Your task to perform on an android device: toggle javascript in the chrome app Image 0: 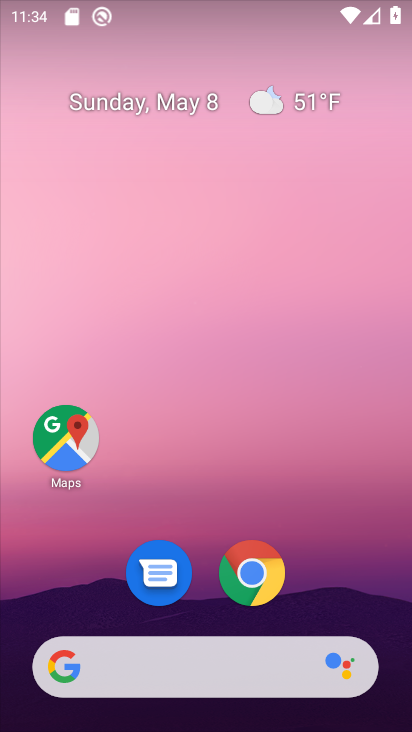
Step 0: click (254, 588)
Your task to perform on an android device: toggle javascript in the chrome app Image 1: 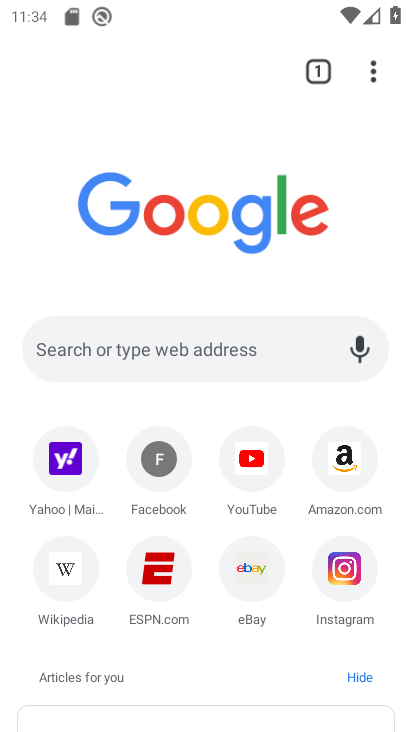
Step 1: click (370, 80)
Your task to perform on an android device: toggle javascript in the chrome app Image 2: 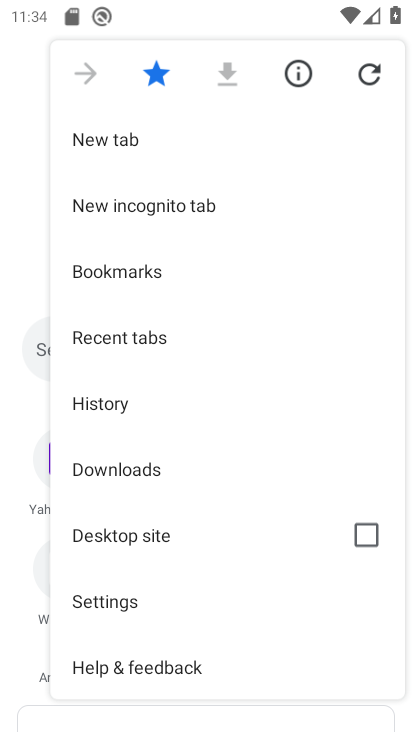
Step 2: click (103, 604)
Your task to perform on an android device: toggle javascript in the chrome app Image 3: 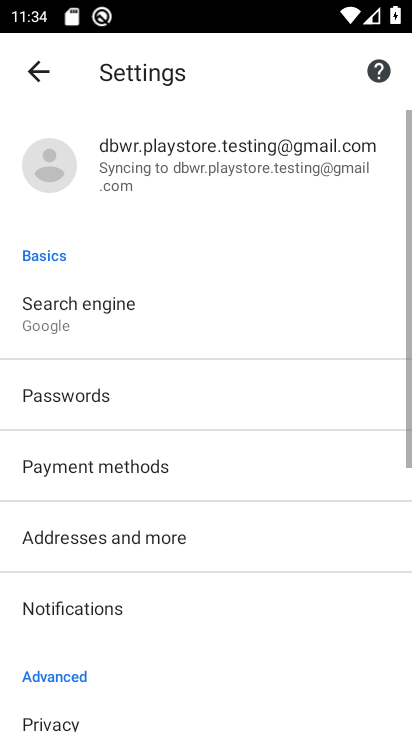
Step 3: drag from (124, 677) to (138, 231)
Your task to perform on an android device: toggle javascript in the chrome app Image 4: 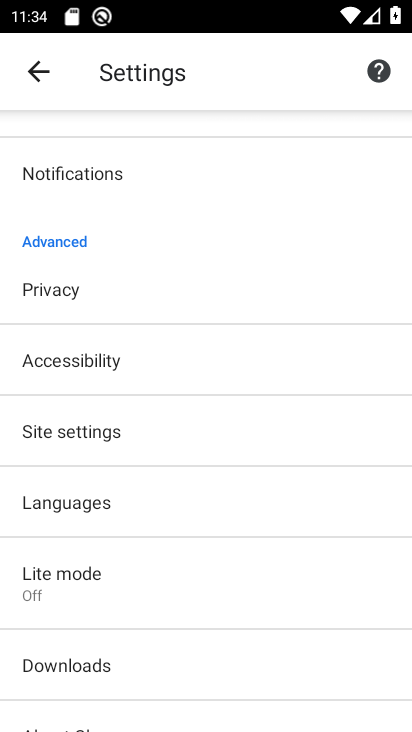
Step 4: click (61, 431)
Your task to perform on an android device: toggle javascript in the chrome app Image 5: 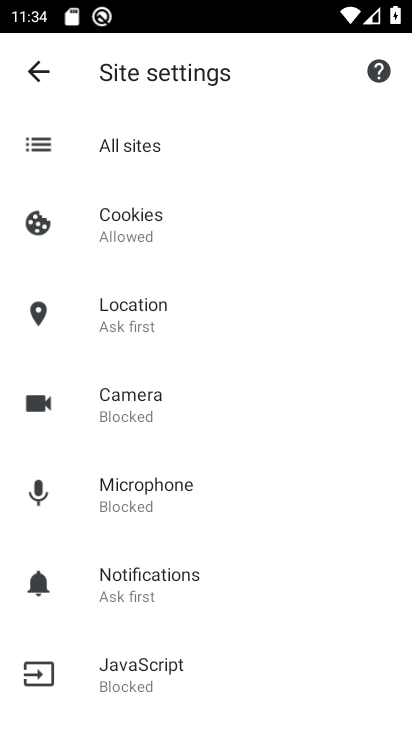
Step 5: click (161, 662)
Your task to perform on an android device: toggle javascript in the chrome app Image 6: 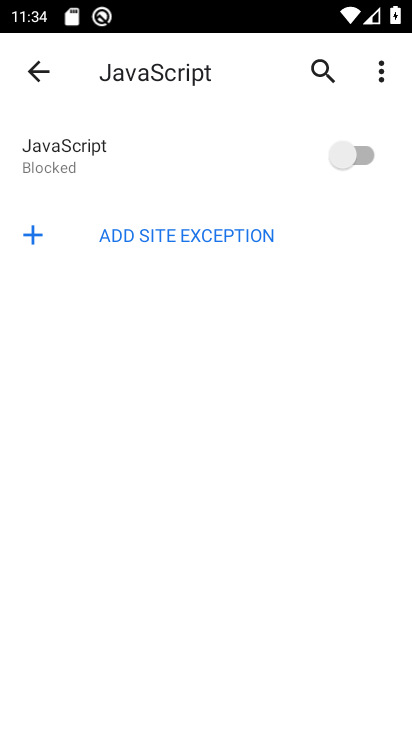
Step 6: click (361, 154)
Your task to perform on an android device: toggle javascript in the chrome app Image 7: 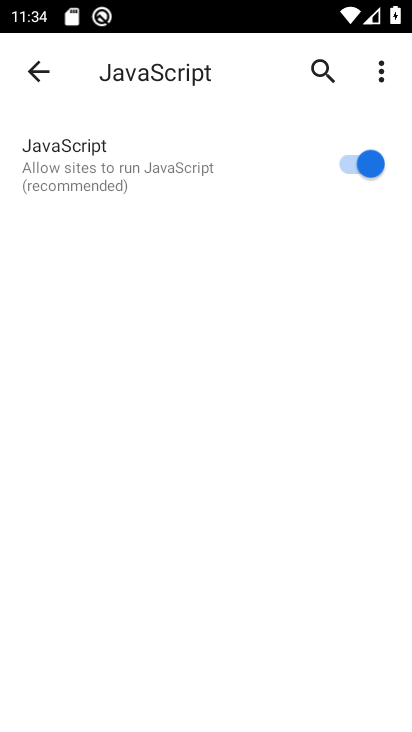
Step 7: task complete